Your task to perform on an android device: check storage Image 0: 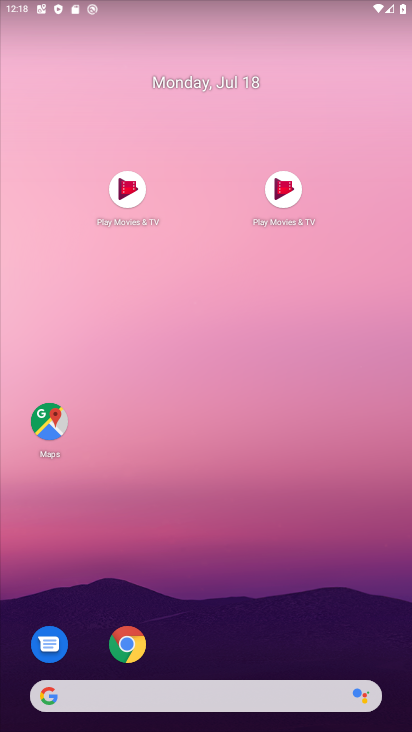
Step 0: drag from (301, 643) to (267, 131)
Your task to perform on an android device: check storage Image 1: 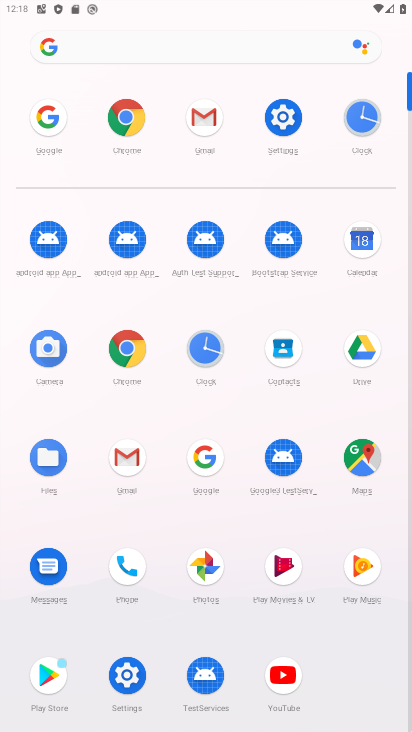
Step 1: click (280, 107)
Your task to perform on an android device: check storage Image 2: 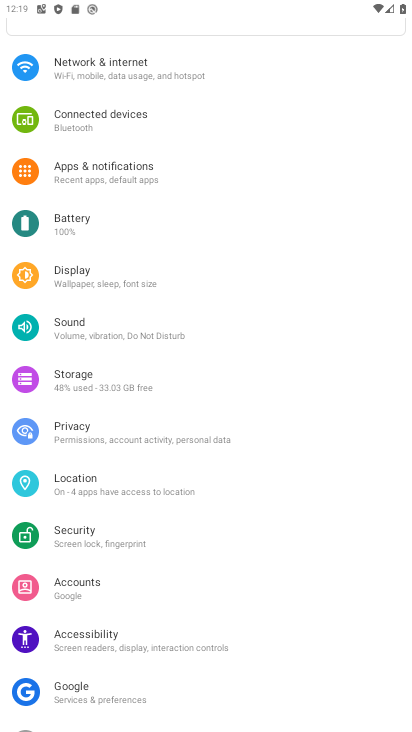
Step 2: click (86, 387)
Your task to perform on an android device: check storage Image 3: 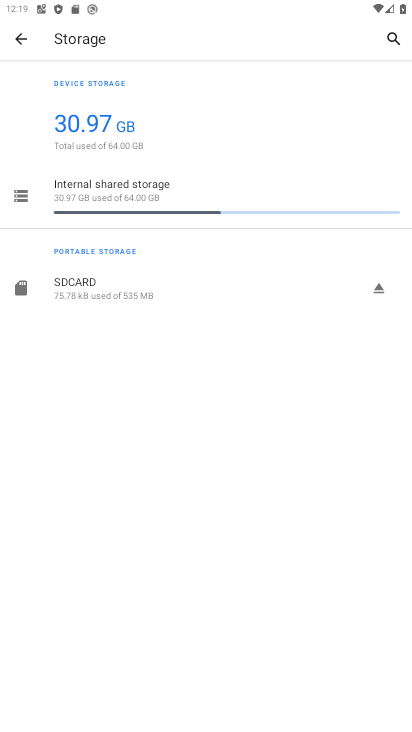
Step 3: task complete